Your task to perform on an android device: Open the calendar and show me this week's events? Image 0: 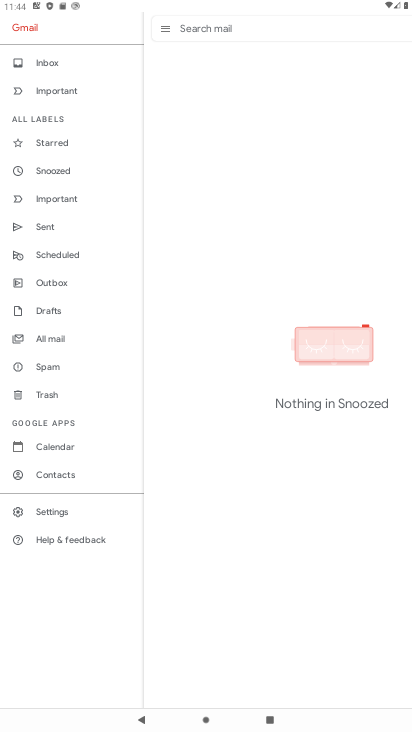
Step 0: press home button
Your task to perform on an android device: Open the calendar and show me this week's events? Image 1: 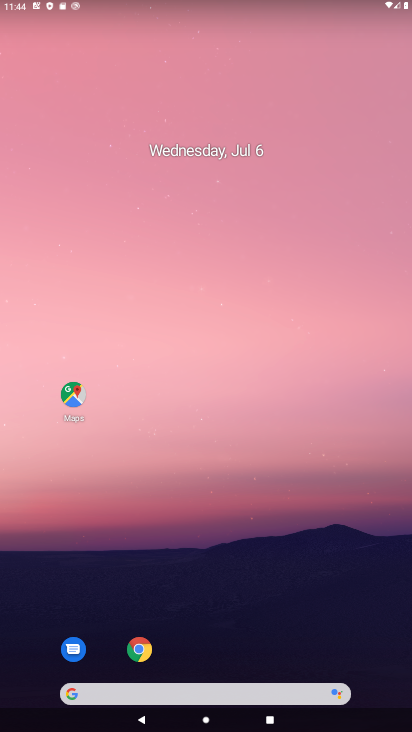
Step 1: drag from (36, 709) to (246, 21)
Your task to perform on an android device: Open the calendar and show me this week's events? Image 2: 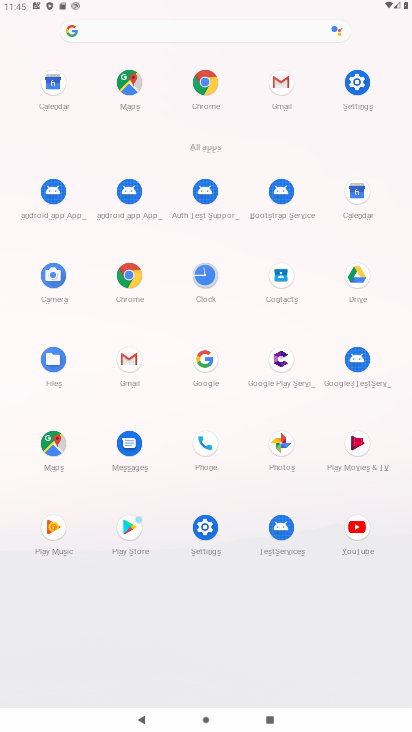
Step 2: click (357, 190)
Your task to perform on an android device: Open the calendar and show me this week's events? Image 3: 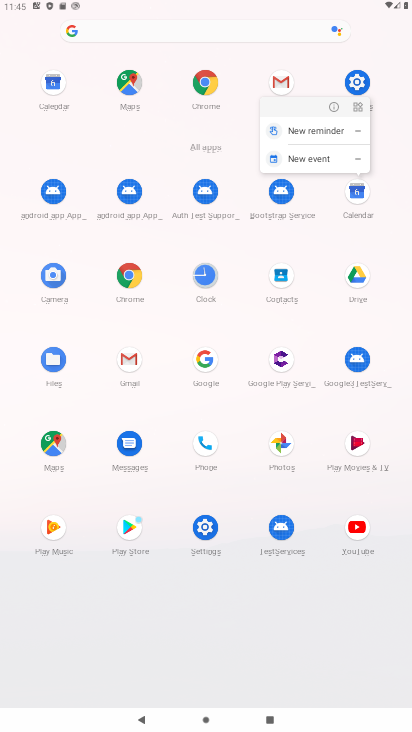
Step 3: click (364, 196)
Your task to perform on an android device: Open the calendar and show me this week's events? Image 4: 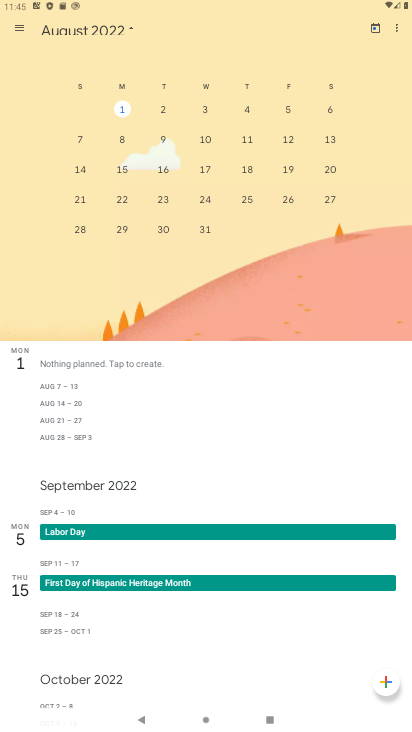
Step 4: drag from (77, 108) to (412, 123)
Your task to perform on an android device: Open the calendar and show me this week's events? Image 5: 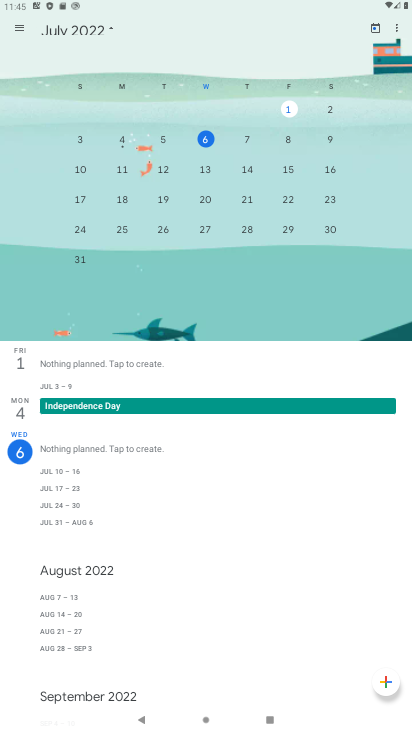
Step 5: click (204, 143)
Your task to perform on an android device: Open the calendar and show me this week's events? Image 6: 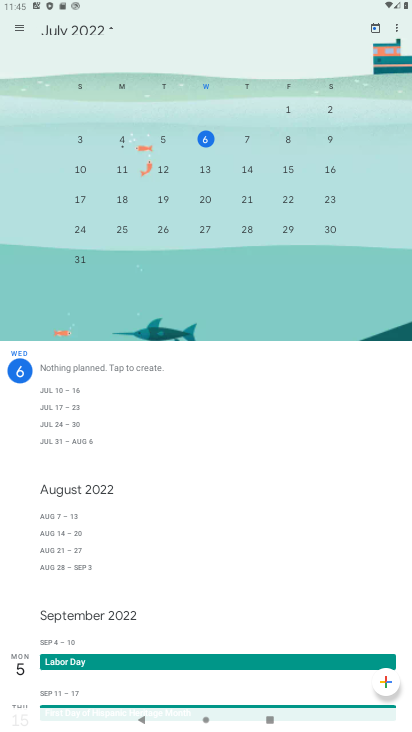
Step 6: task complete